Your task to perform on an android device: Open wifi settings Image 0: 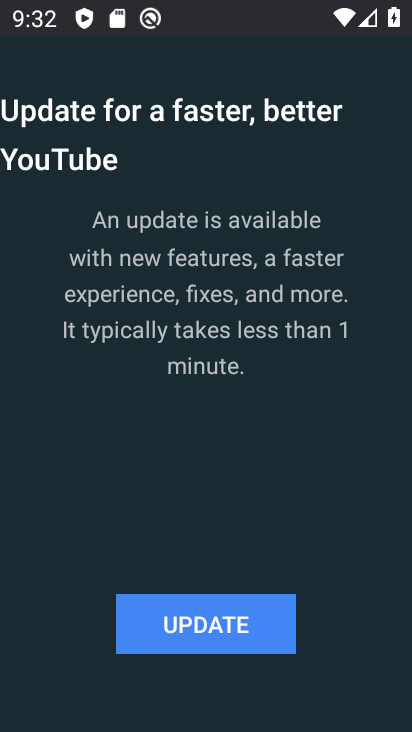
Step 0: press home button
Your task to perform on an android device: Open wifi settings Image 1: 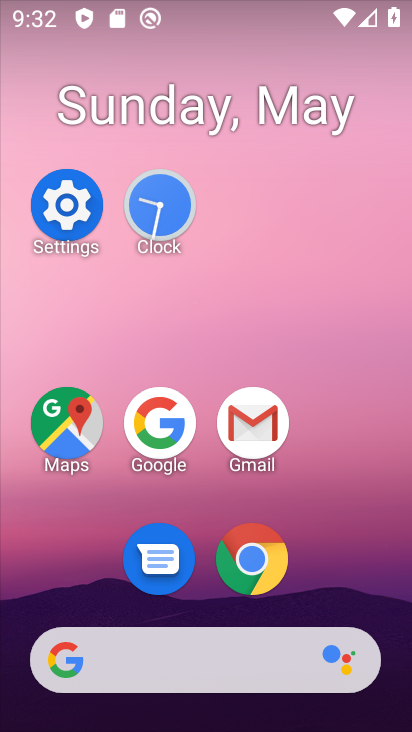
Step 1: click (41, 213)
Your task to perform on an android device: Open wifi settings Image 2: 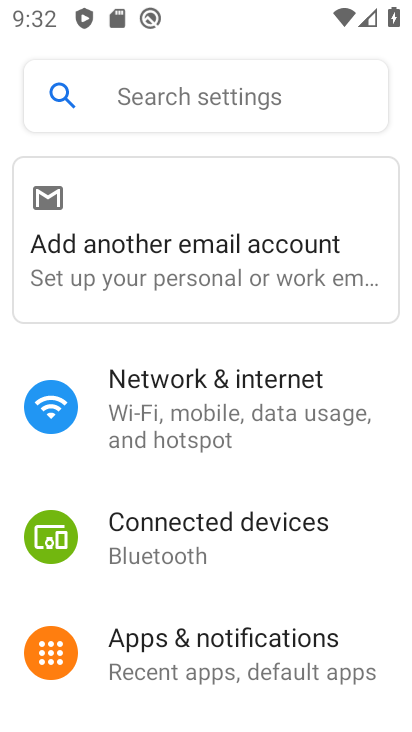
Step 2: click (275, 436)
Your task to perform on an android device: Open wifi settings Image 3: 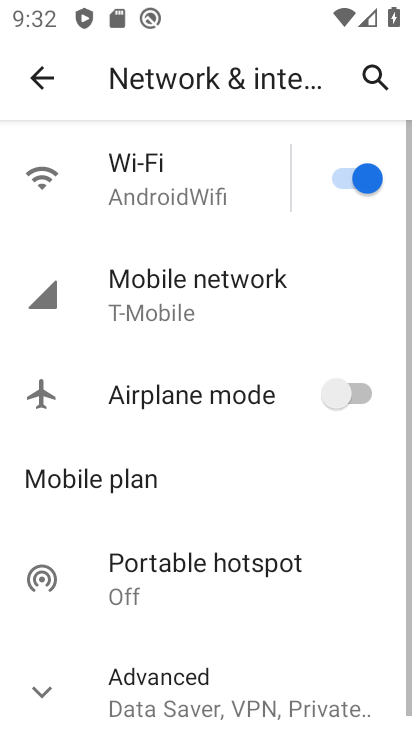
Step 3: click (143, 152)
Your task to perform on an android device: Open wifi settings Image 4: 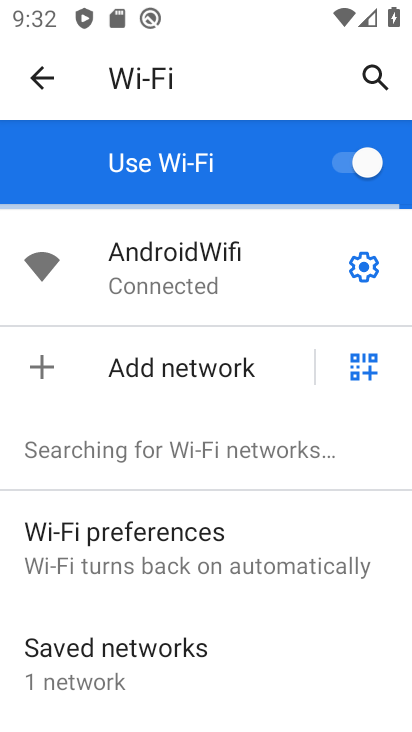
Step 4: click (359, 265)
Your task to perform on an android device: Open wifi settings Image 5: 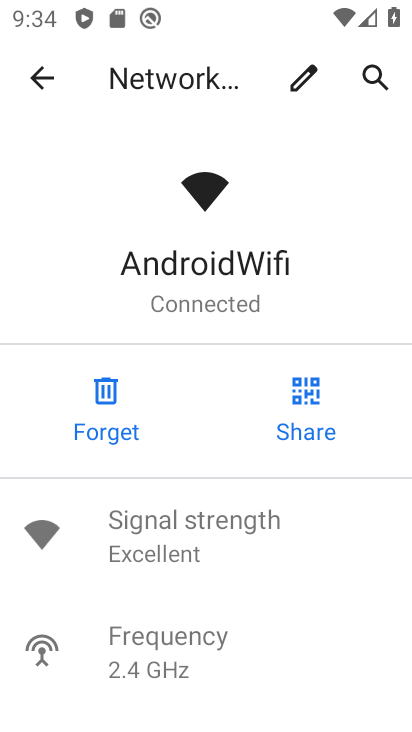
Step 5: task complete